Your task to perform on an android device: Open settings on Google Maps Image 0: 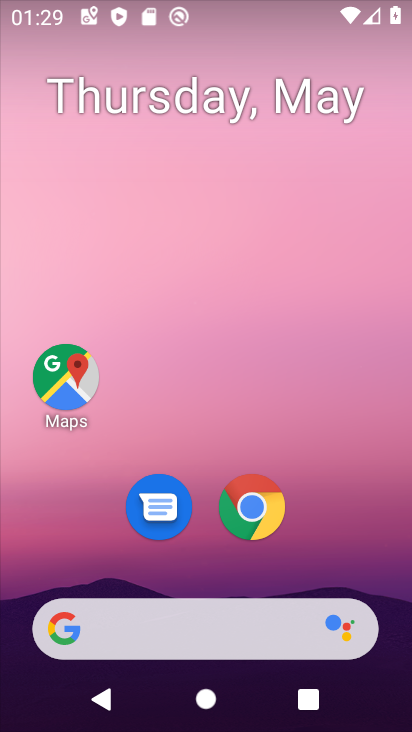
Step 0: drag from (305, 526) to (325, 189)
Your task to perform on an android device: Open settings on Google Maps Image 1: 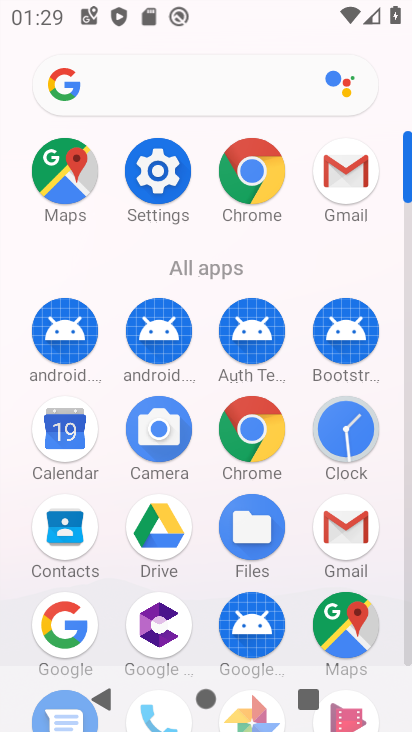
Step 1: click (53, 618)
Your task to perform on an android device: Open settings on Google Maps Image 2: 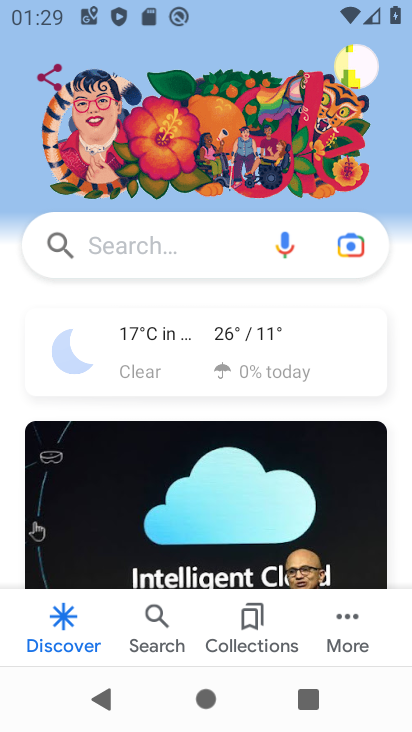
Step 2: task complete